Your task to perform on an android device: empty trash in google photos Image 0: 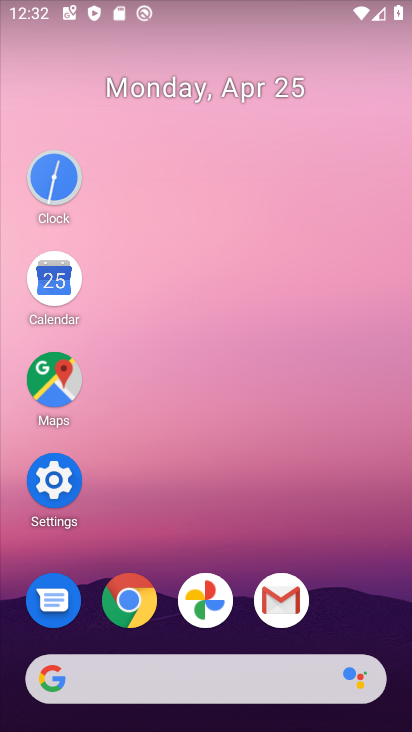
Step 0: click (204, 601)
Your task to perform on an android device: empty trash in google photos Image 1: 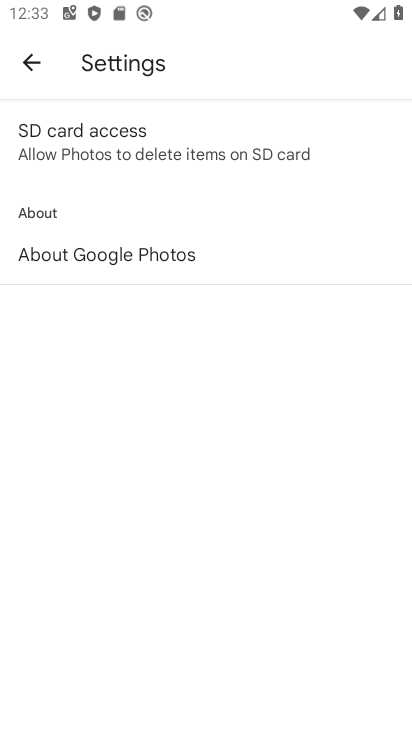
Step 1: click (27, 65)
Your task to perform on an android device: empty trash in google photos Image 2: 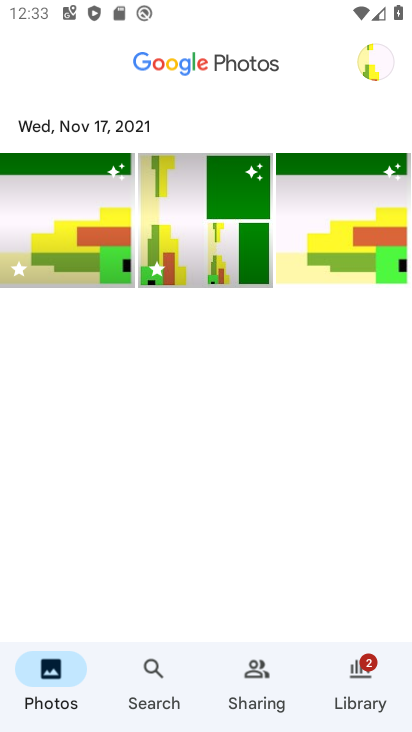
Step 2: click (29, 68)
Your task to perform on an android device: empty trash in google photos Image 3: 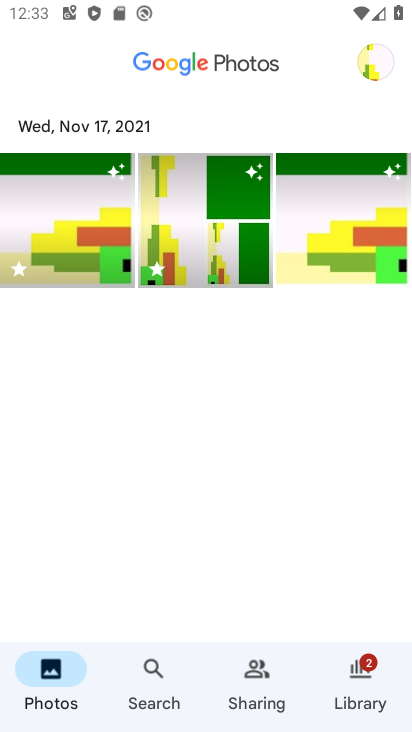
Step 3: click (149, 667)
Your task to perform on an android device: empty trash in google photos Image 4: 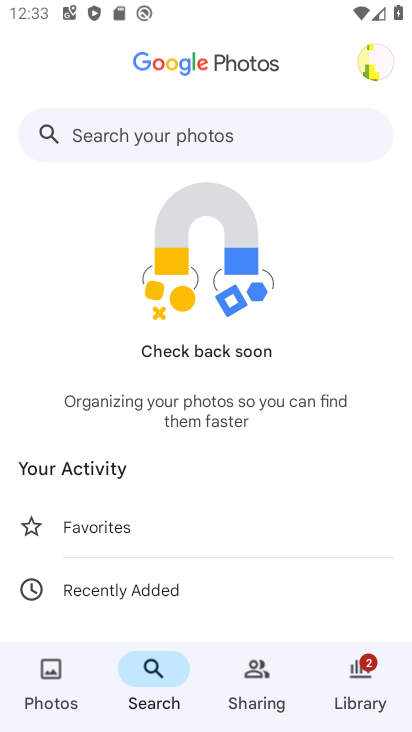
Step 4: click (128, 134)
Your task to perform on an android device: empty trash in google photos Image 5: 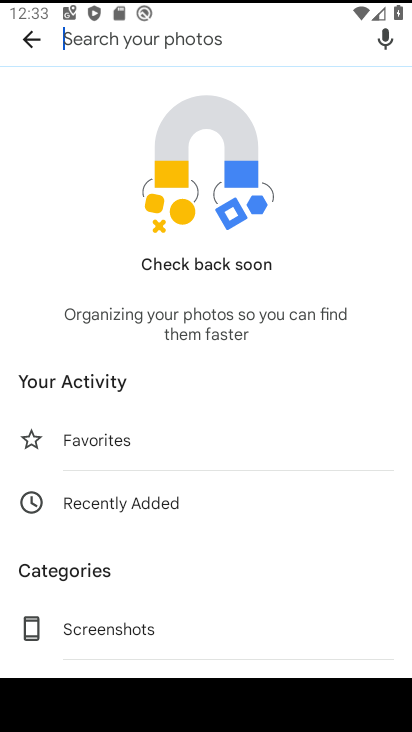
Step 5: type "trash"
Your task to perform on an android device: empty trash in google photos Image 6: 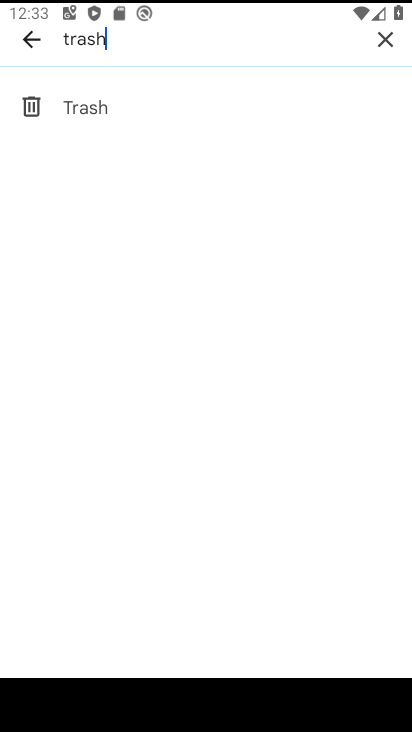
Step 6: click (72, 103)
Your task to perform on an android device: empty trash in google photos Image 7: 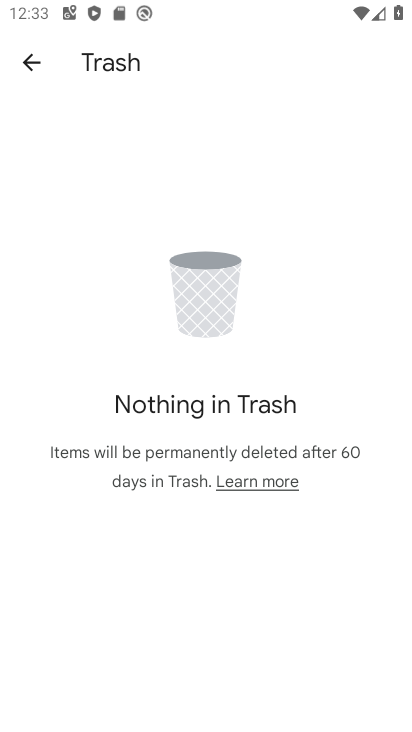
Step 7: task complete